Your task to perform on an android device: Open eBay Image 0: 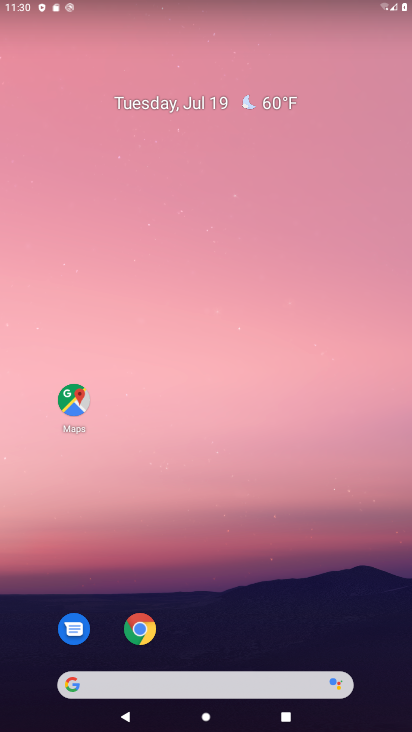
Step 0: click (131, 634)
Your task to perform on an android device: Open eBay Image 1: 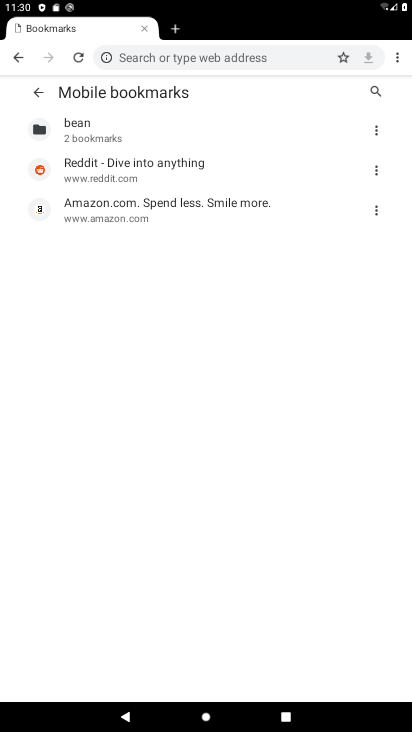
Step 1: click (220, 49)
Your task to perform on an android device: Open eBay Image 2: 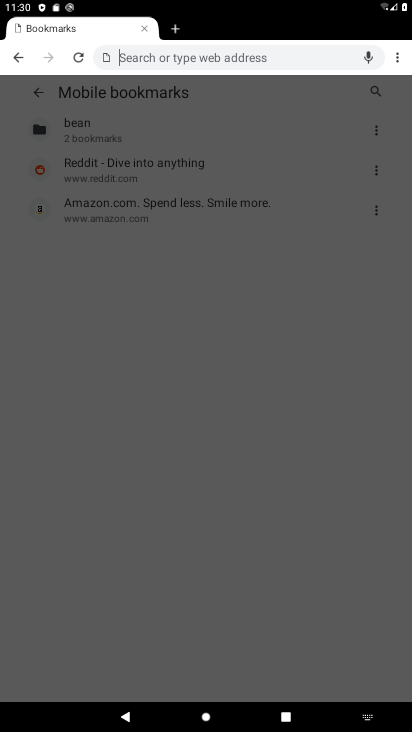
Step 2: type "ebay"
Your task to perform on an android device: Open eBay Image 3: 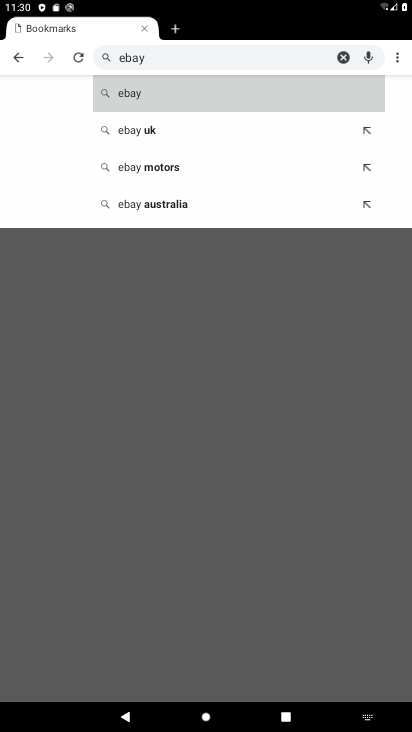
Step 3: click (172, 93)
Your task to perform on an android device: Open eBay Image 4: 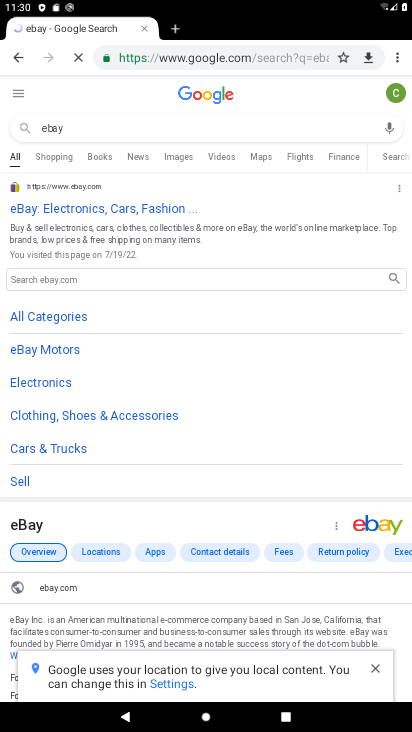
Step 4: click (70, 205)
Your task to perform on an android device: Open eBay Image 5: 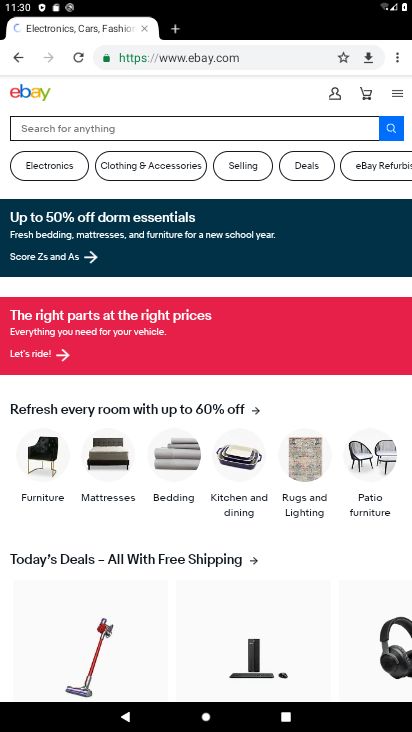
Step 5: task complete